Your task to perform on an android device: Go to Android settings Image 0: 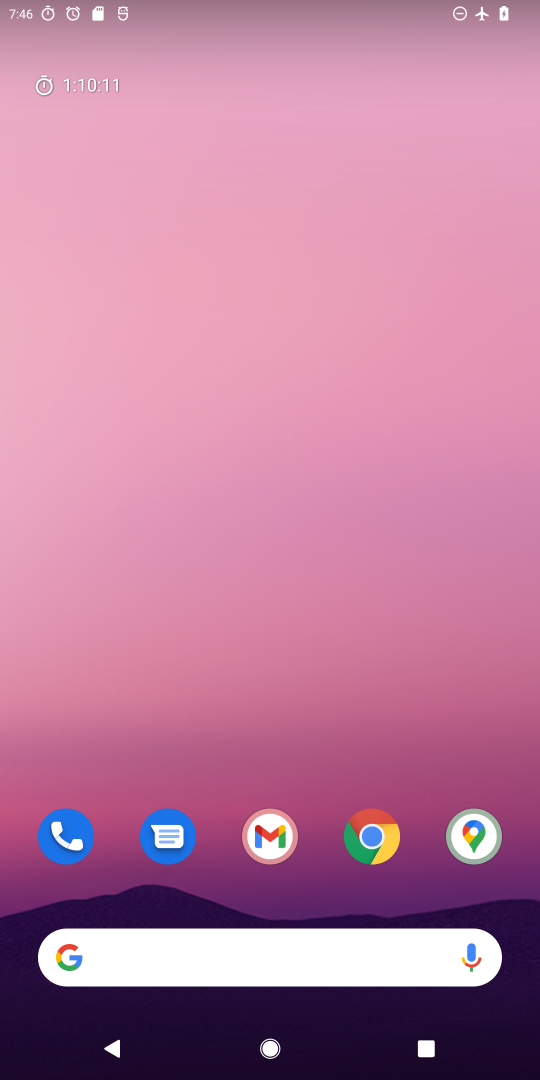
Step 0: drag from (192, 894) to (288, 3)
Your task to perform on an android device: Go to Android settings Image 1: 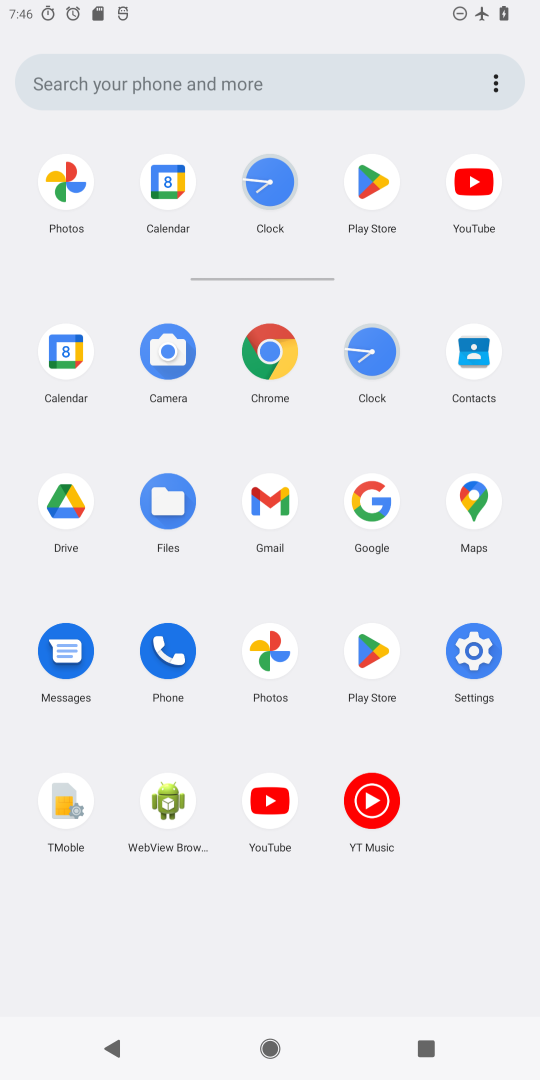
Step 1: click (452, 662)
Your task to perform on an android device: Go to Android settings Image 2: 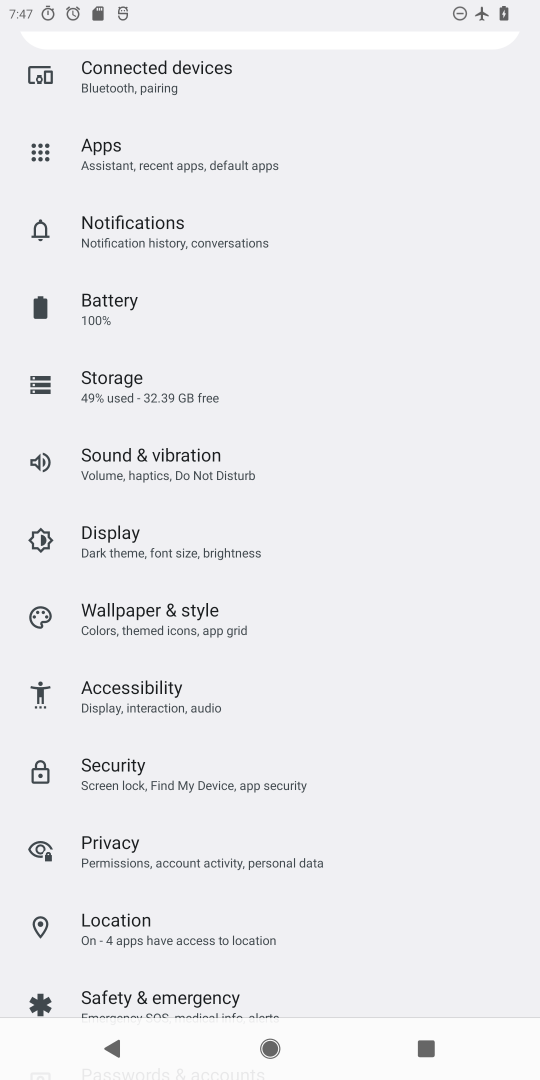
Step 2: task complete